Your task to perform on an android device: What's the weather? Image 0: 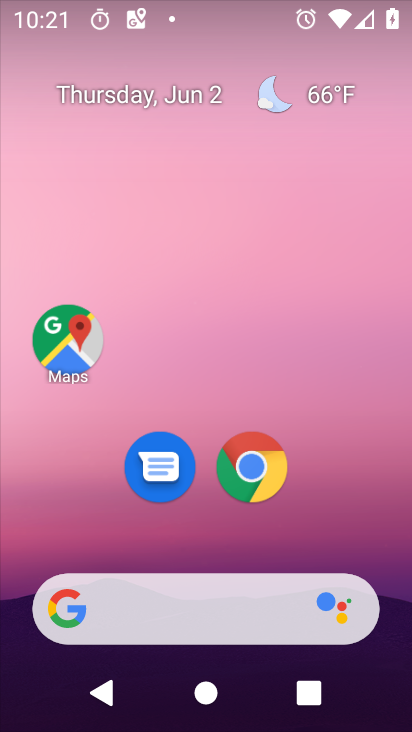
Step 0: click (259, 611)
Your task to perform on an android device: What's the weather? Image 1: 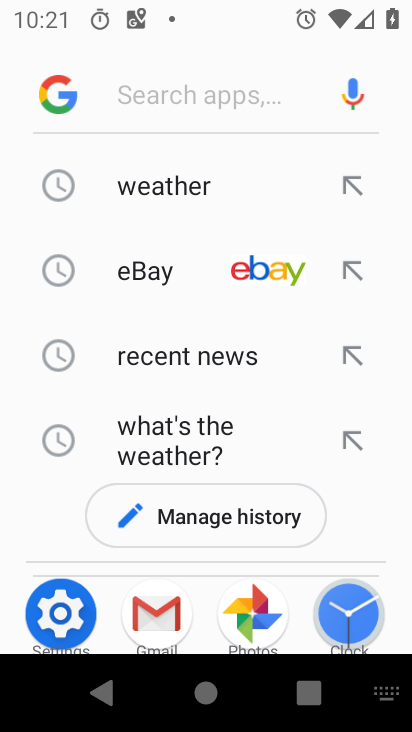
Step 1: click (164, 186)
Your task to perform on an android device: What's the weather? Image 2: 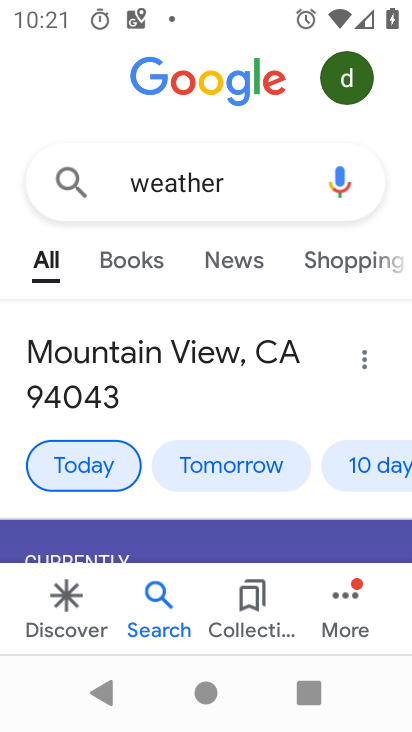
Step 2: task complete